Your task to perform on an android device: set the stopwatch Image 0: 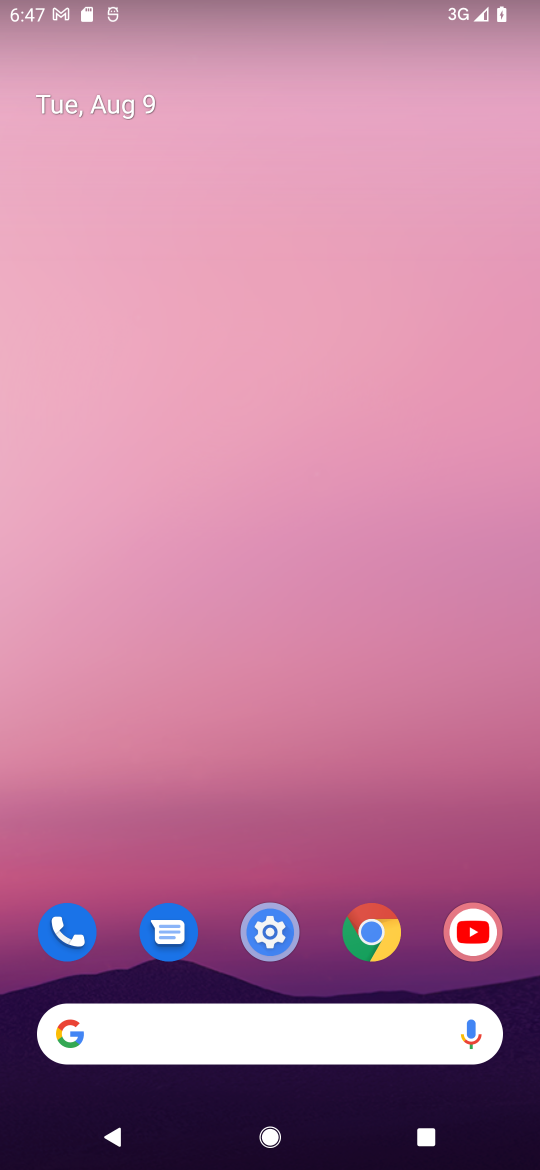
Step 0: drag from (221, 943) to (218, 382)
Your task to perform on an android device: set the stopwatch Image 1: 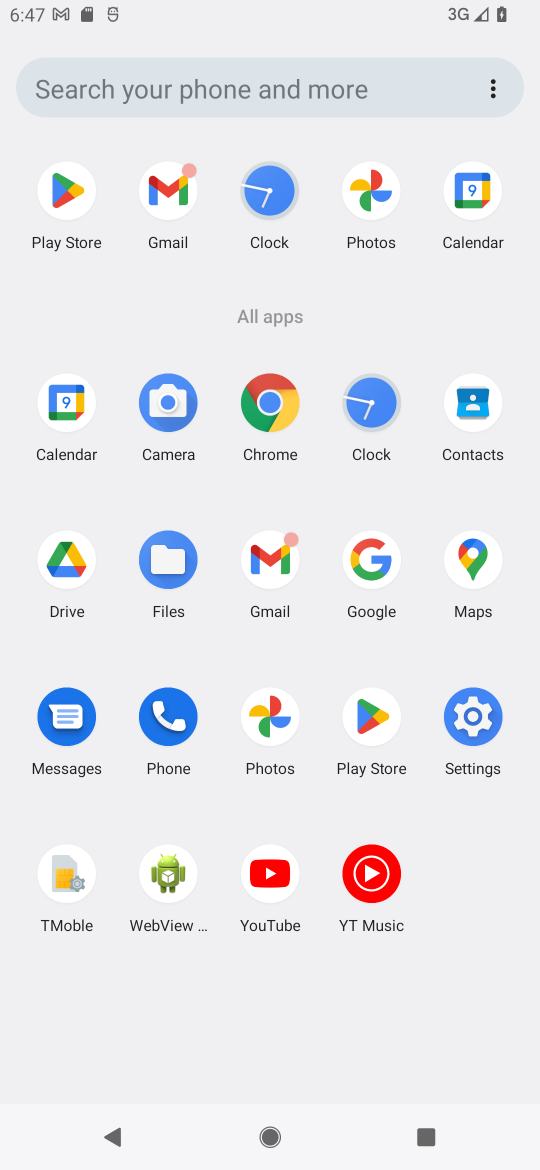
Step 1: click (376, 429)
Your task to perform on an android device: set the stopwatch Image 2: 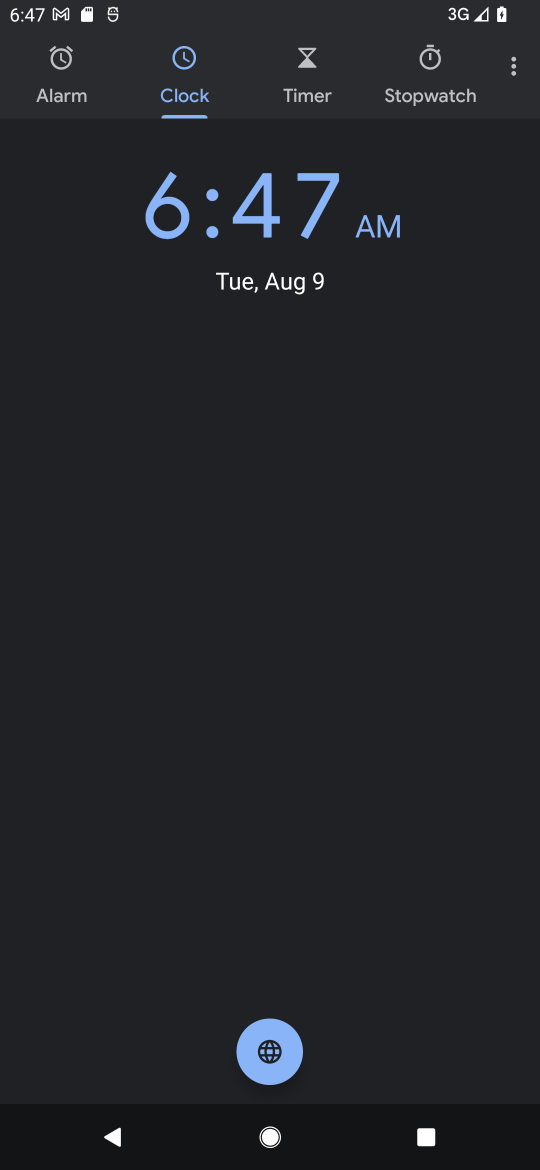
Step 2: click (419, 93)
Your task to perform on an android device: set the stopwatch Image 3: 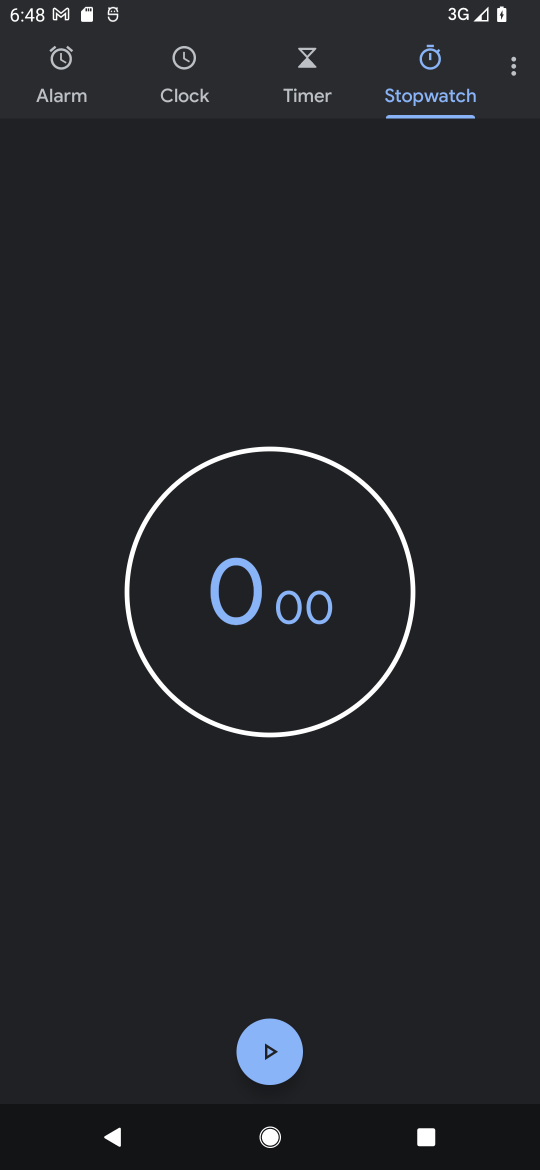
Step 3: task complete